Your task to perform on an android device: Search for the best gaming monitor on Best Buy Image 0: 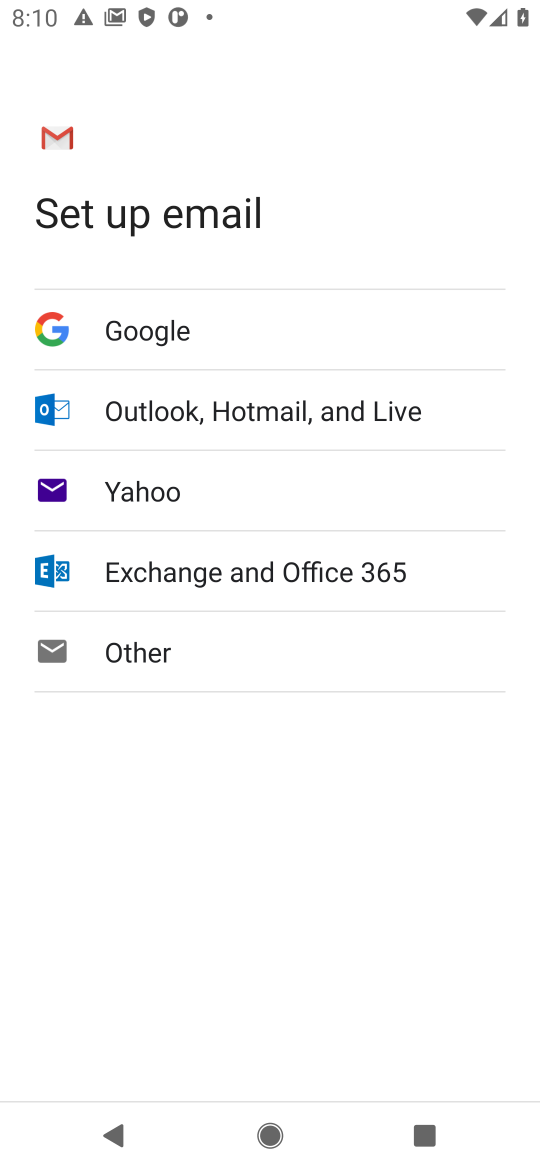
Step 0: press home button
Your task to perform on an android device: Search for the best gaming monitor on Best Buy Image 1: 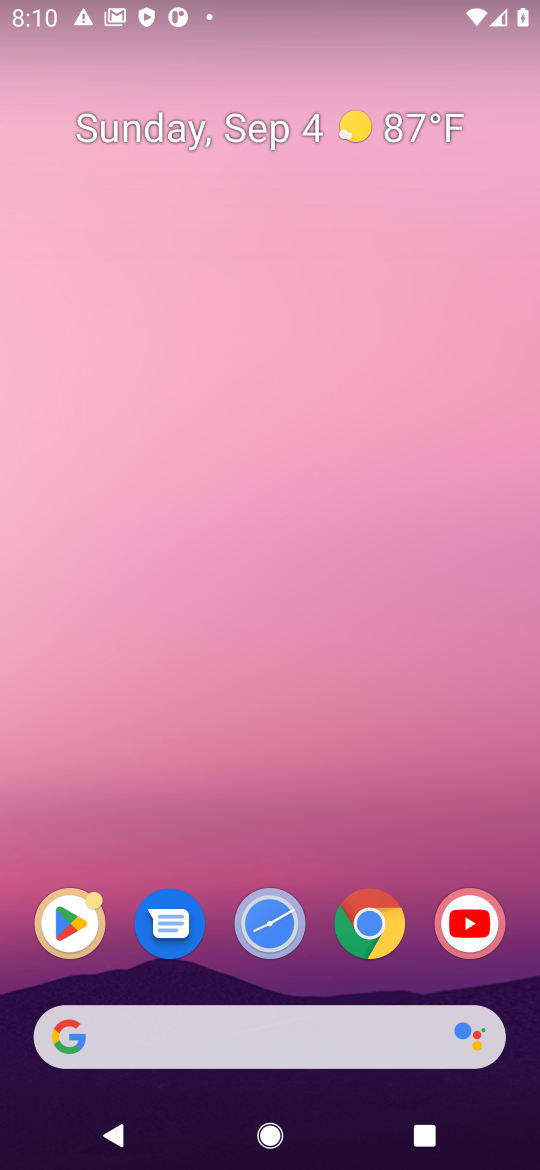
Step 1: click (369, 1039)
Your task to perform on an android device: Search for the best gaming monitor on Best Buy Image 2: 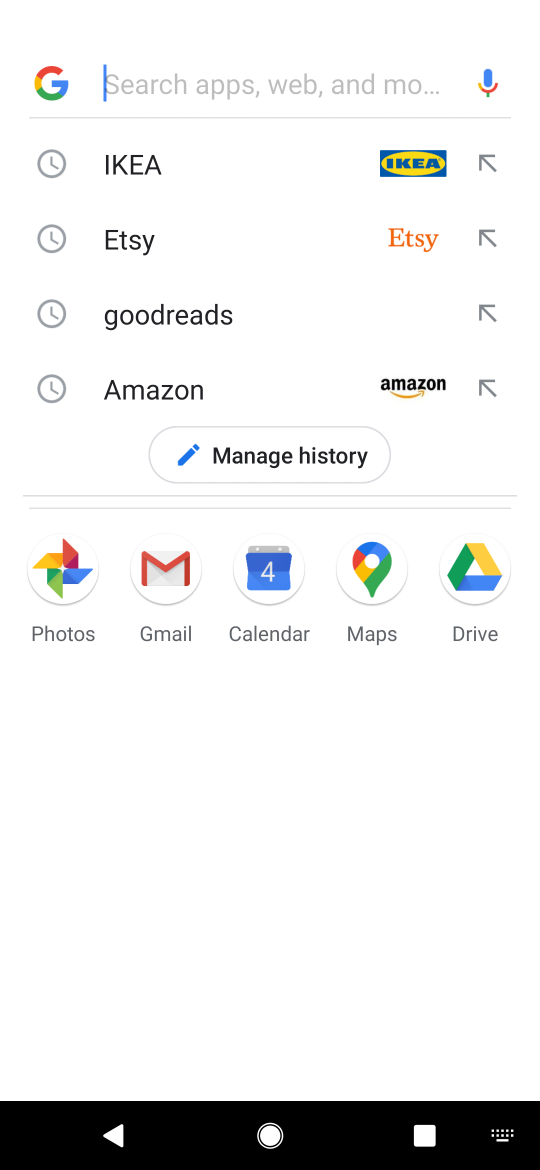
Step 2: press enter
Your task to perform on an android device: Search for the best gaming monitor on Best Buy Image 3: 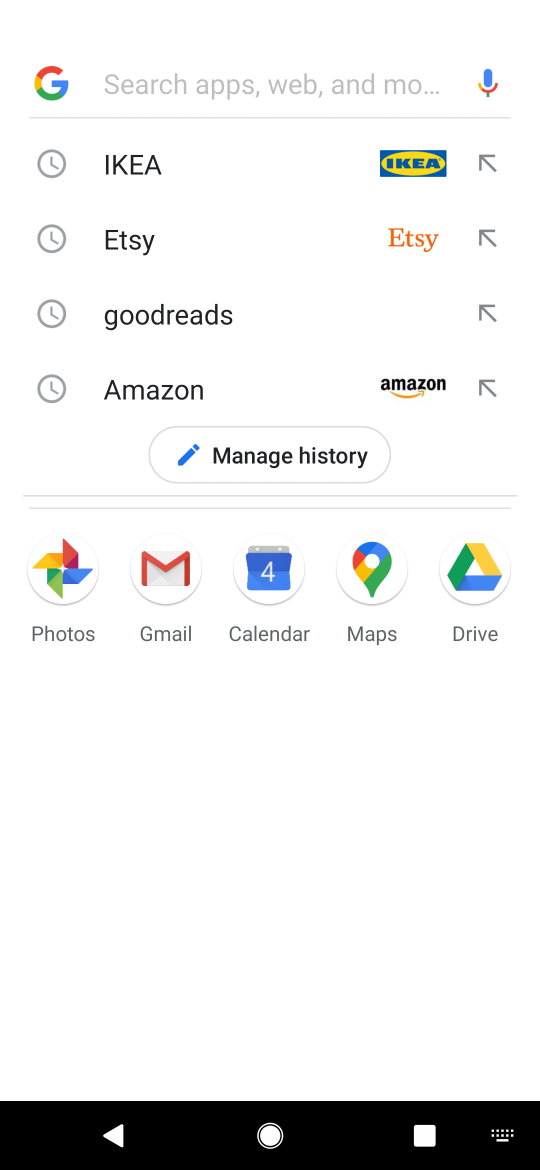
Step 3: type "best buy"
Your task to perform on an android device: Search for the best gaming monitor on Best Buy Image 4: 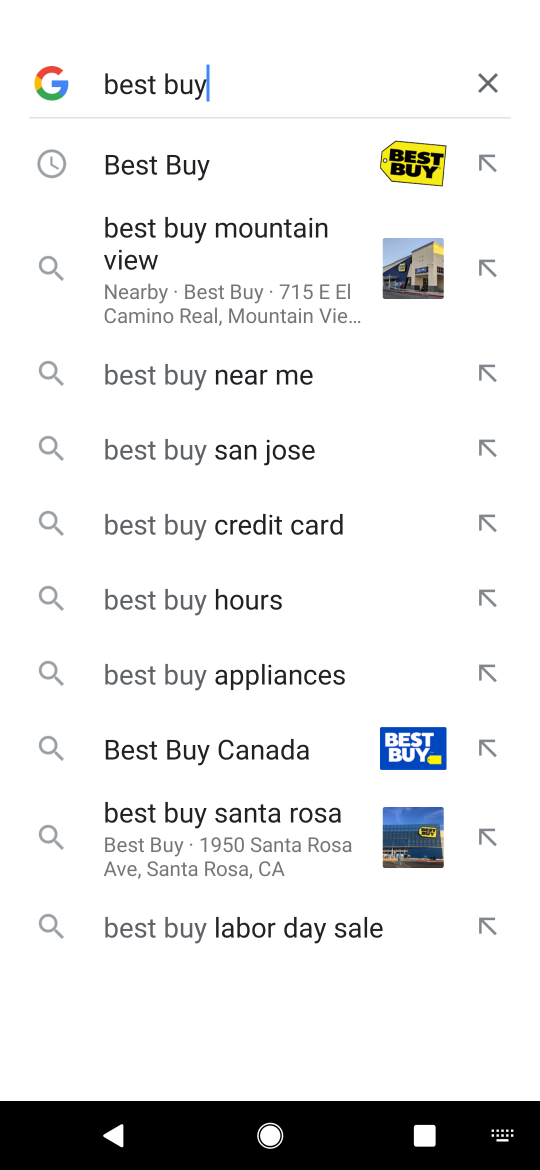
Step 4: click (195, 157)
Your task to perform on an android device: Search for the best gaming monitor on Best Buy Image 5: 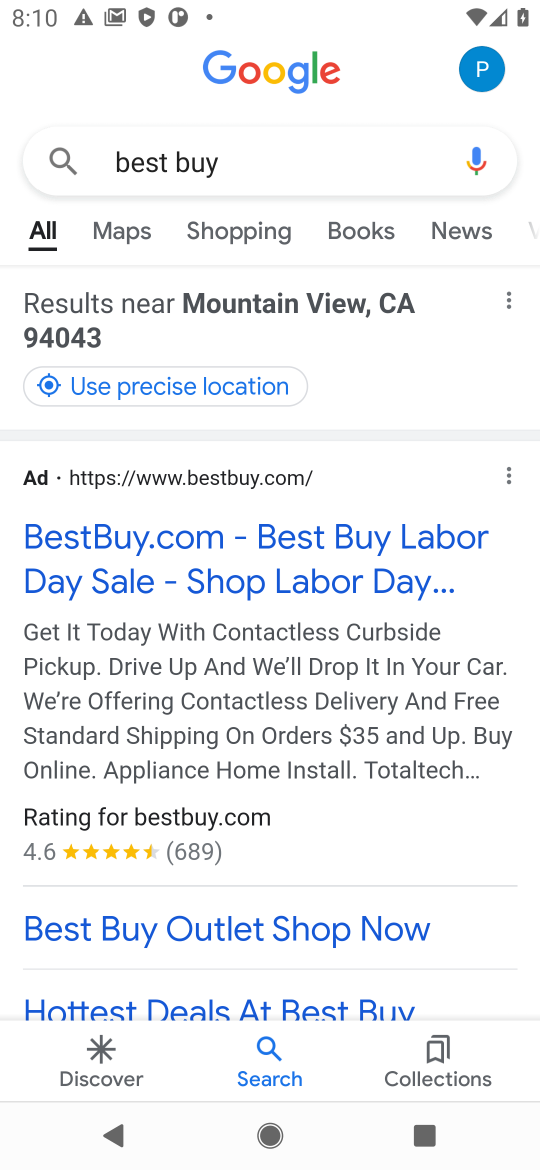
Step 5: click (261, 567)
Your task to perform on an android device: Search for the best gaming monitor on Best Buy Image 6: 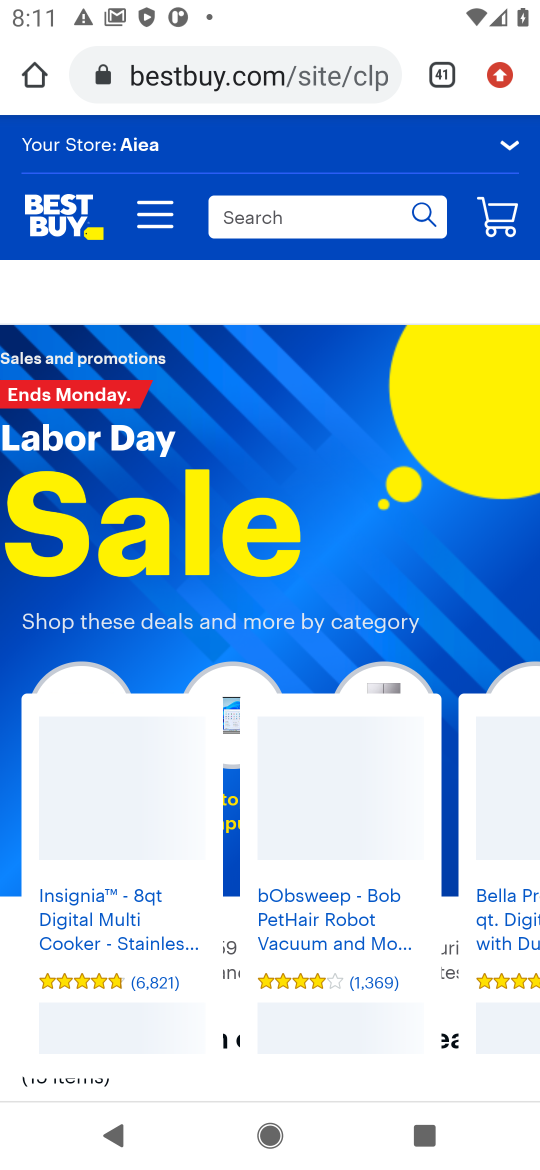
Step 6: click (316, 210)
Your task to perform on an android device: Search for the best gaming monitor on Best Buy Image 7: 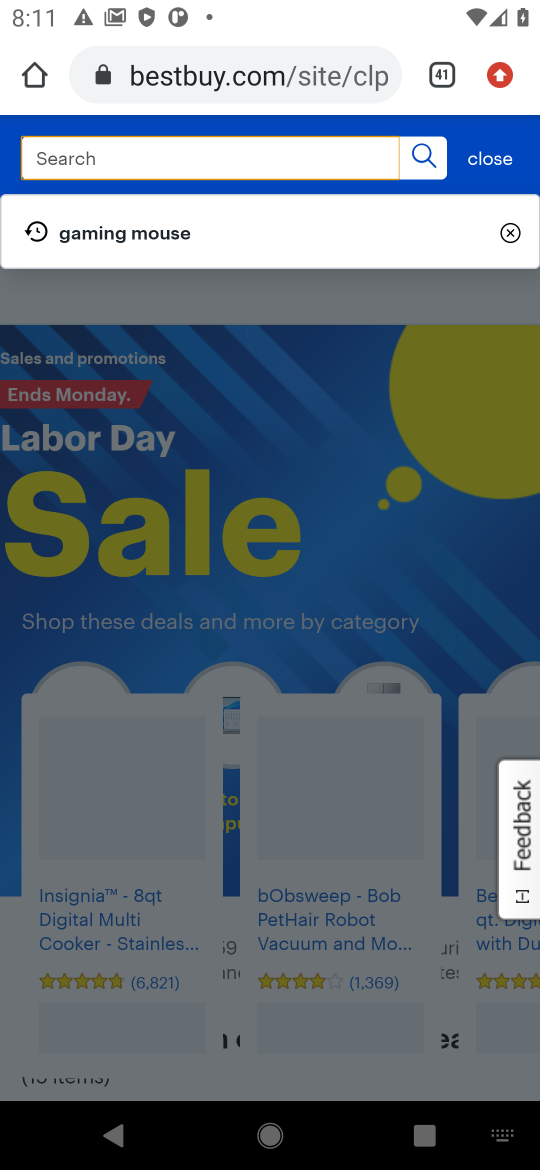
Step 7: press enter
Your task to perform on an android device: Search for the best gaming monitor on Best Buy Image 8: 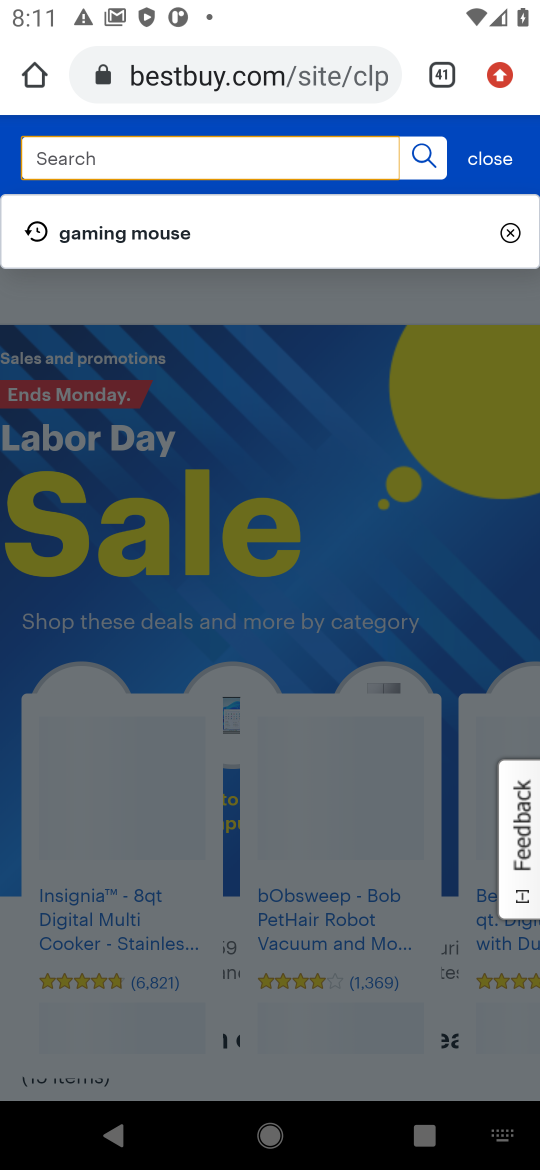
Step 8: type "gaming monitor"
Your task to perform on an android device: Search for the best gaming monitor on Best Buy Image 9: 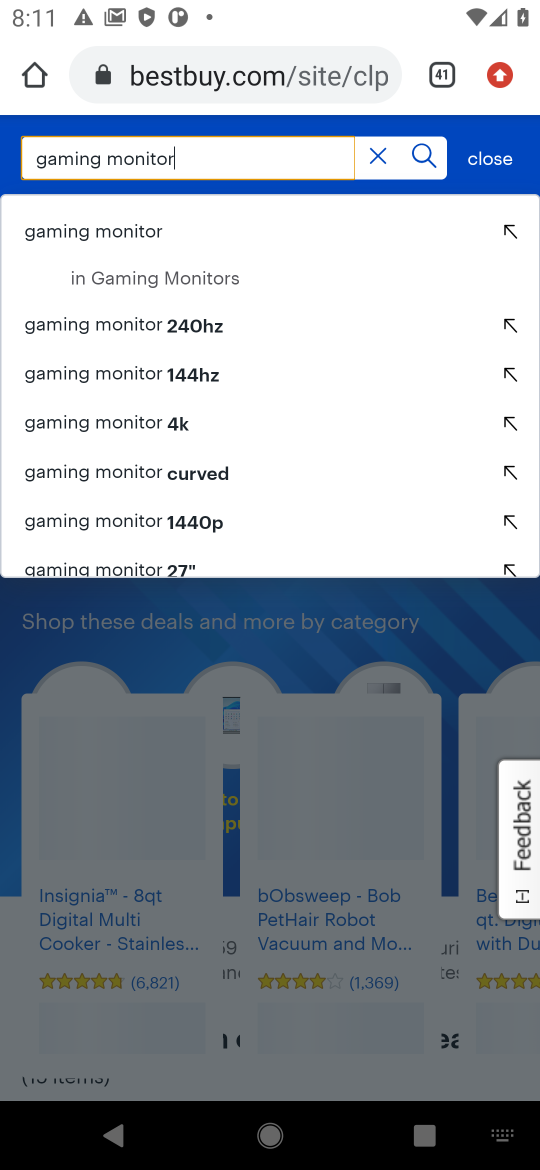
Step 9: click (145, 230)
Your task to perform on an android device: Search for the best gaming monitor on Best Buy Image 10: 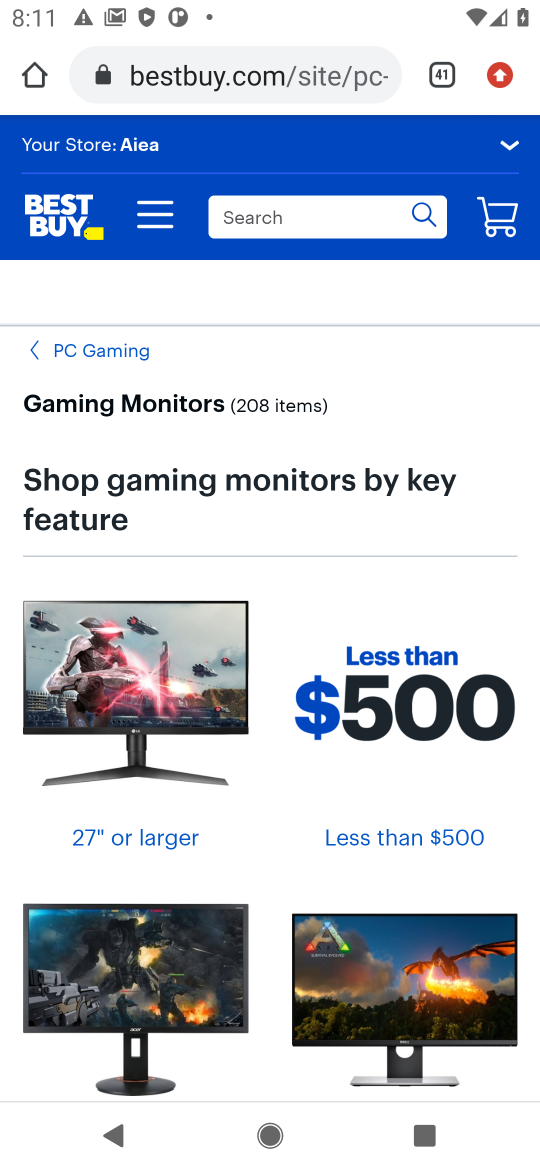
Step 10: task complete